Your task to perform on an android device: What is the recent news? Image 0: 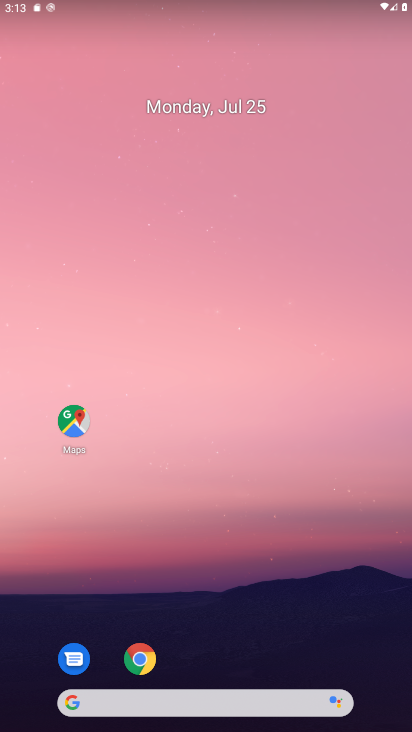
Step 0: drag from (287, 136) to (310, 53)
Your task to perform on an android device: What is the recent news? Image 1: 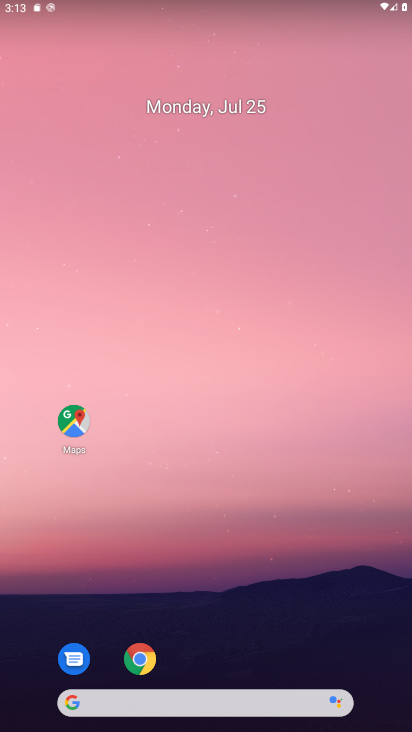
Step 1: drag from (205, 365) to (226, 13)
Your task to perform on an android device: What is the recent news? Image 2: 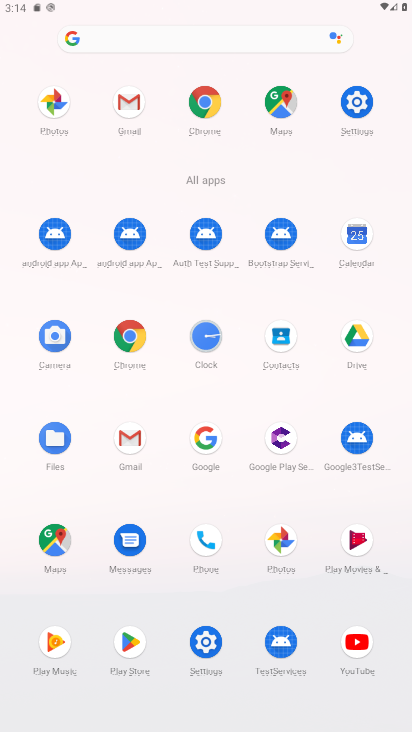
Step 2: click (204, 453)
Your task to perform on an android device: What is the recent news? Image 3: 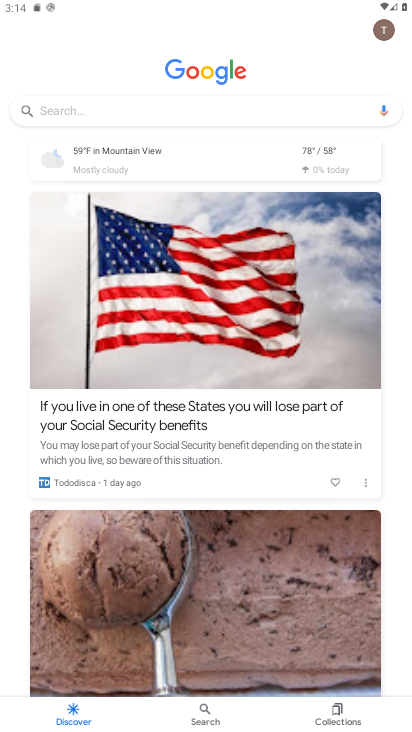
Step 3: task complete